Your task to perform on an android device: turn off data saver in the chrome app Image 0: 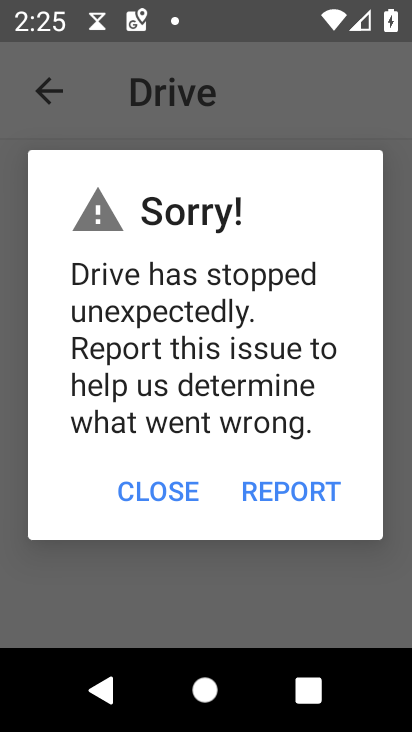
Step 0: press home button
Your task to perform on an android device: turn off data saver in the chrome app Image 1: 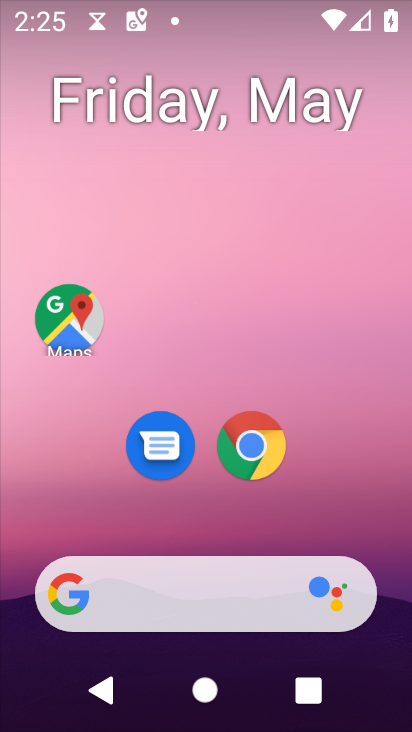
Step 1: click (271, 436)
Your task to perform on an android device: turn off data saver in the chrome app Image 2: 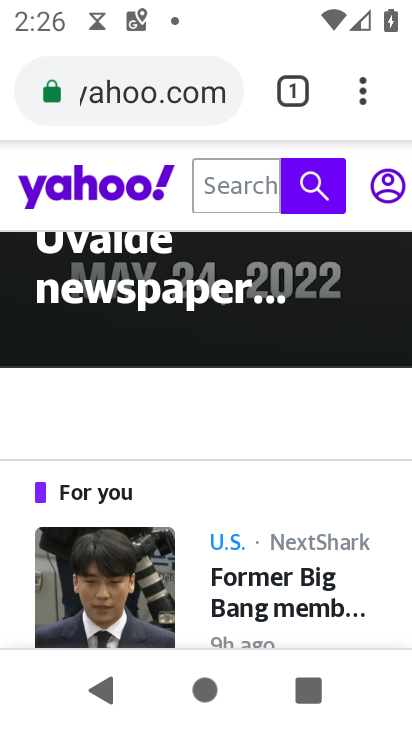
Step 2: click (362, 88)
Your task to perform on an android device: turn off data saver in the chrome app Image 3: 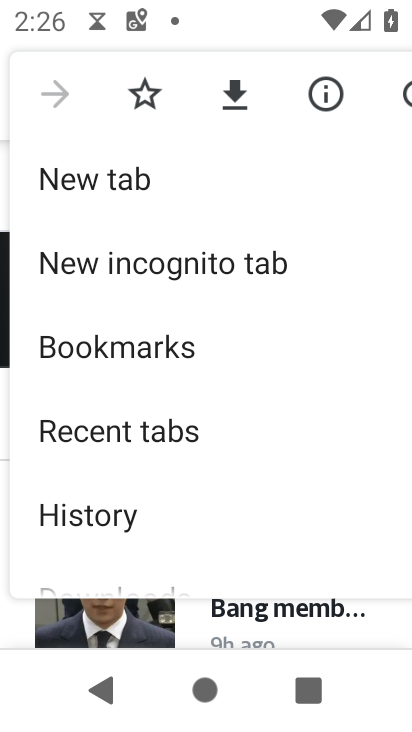
Step 3: click (228, 484)
Your task to perform on an android device: turn off data saver in the chrome app Image 4: 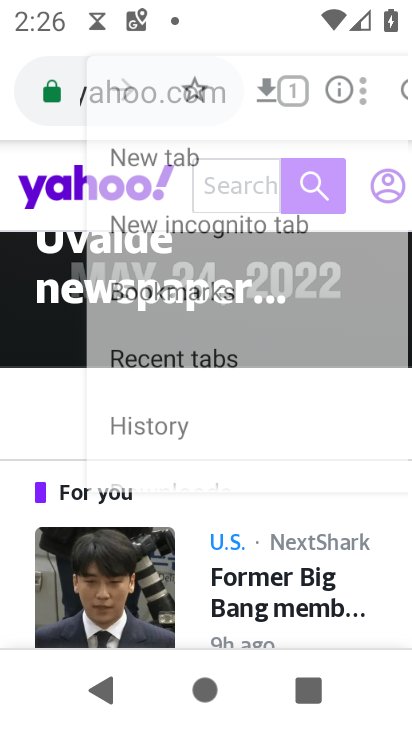
Step 4: click (269, 396)
Your task to perform on an android device: turn off data saver in the chrome app Image 5: 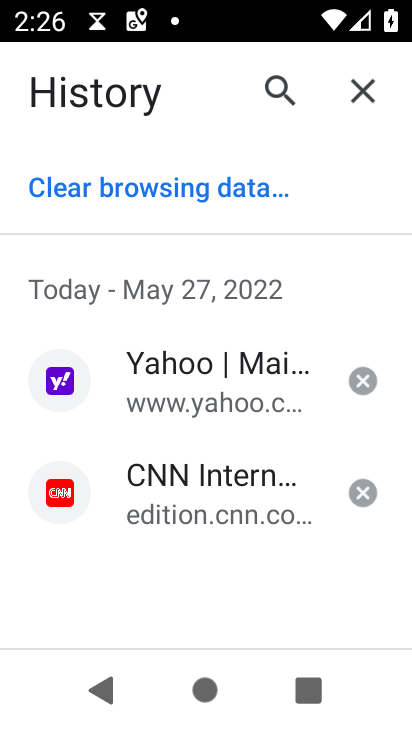
Step 5: click (353, 97)
Your task to perform on an android device: turn off data saver in the chrome app Image 6: 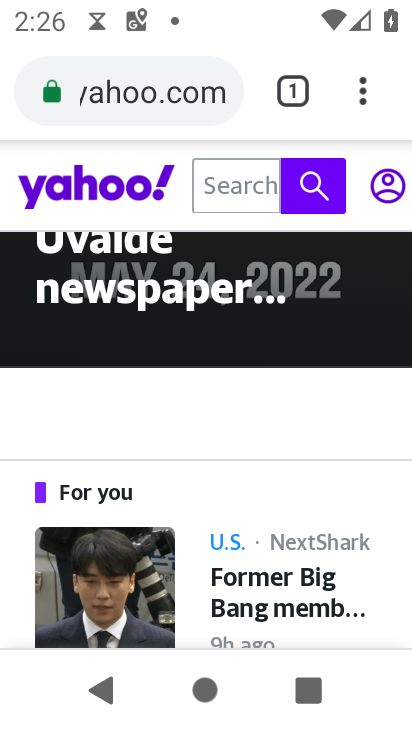
Step 6: click (361, 90)
Your task to perform on an android device: turn off data saver in the chrome app Image 7: 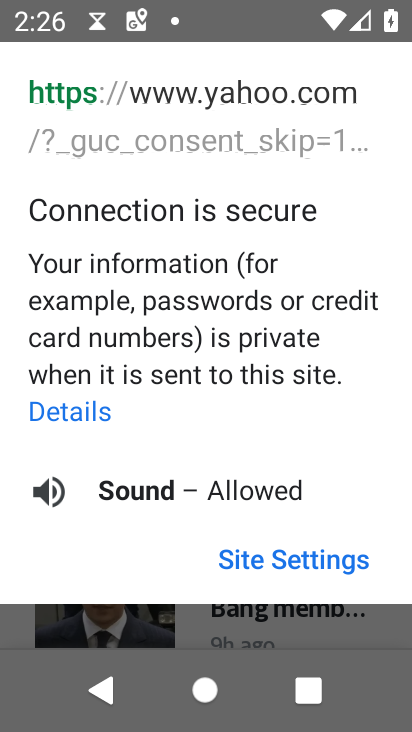
Step 7: click (175, 644)
Your task to perform on an android device: turn off data saver in the chrome app Image 8: 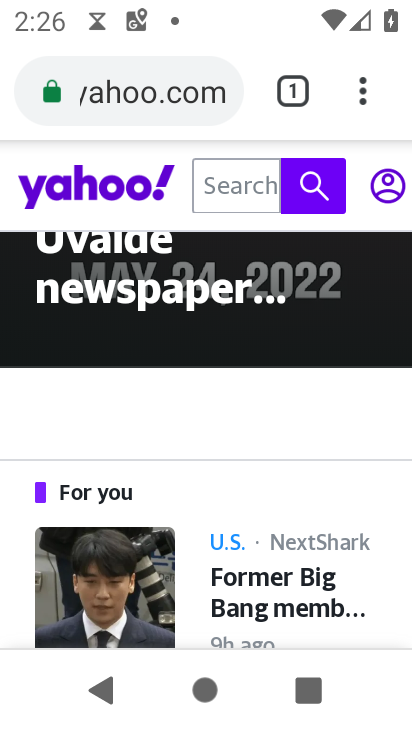
Step 8: click (371, 153)
Your task to perform on an android device: turn off data saver in the chrome app Image 9: 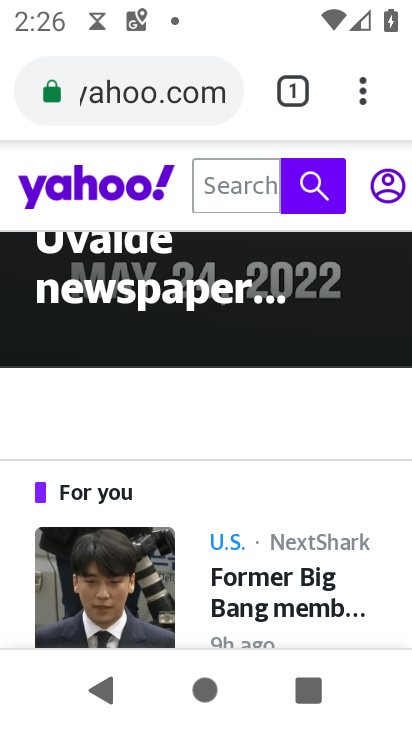
Step 9: click (359, 100)
Your task to perform on an android device: turn off data saver in the chrome app Image 10: 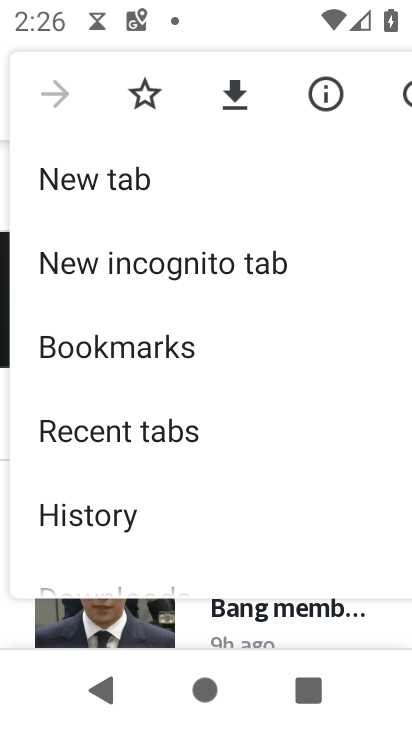
Step 10: drag from (167, 435) to (213, 56)
Your task to perform on an android device: turn off data saver in the chrome app Image 11: 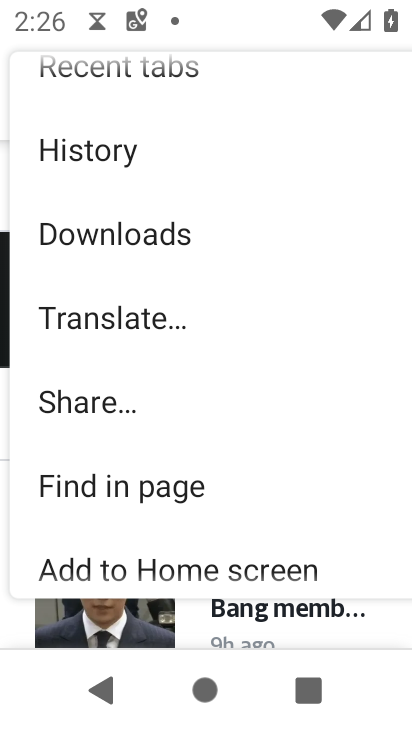
Step 11: drag from (158, 534) to (209, 127)
Your task to perform on an android device: turn off data saver in the chrome app Image 12: 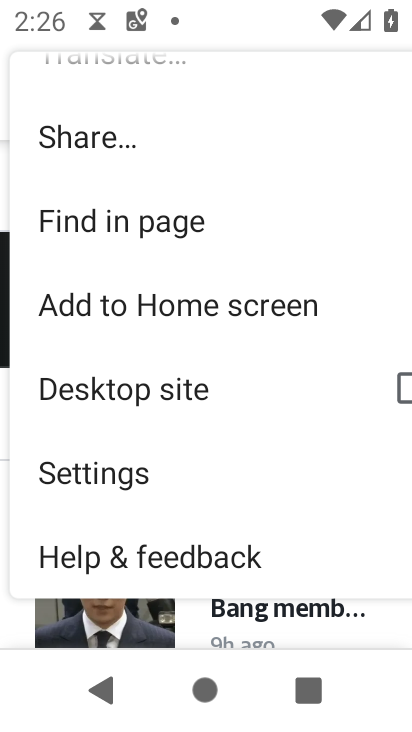
Step 12: click (154, 469)
Your task to perform on an android device: turn off data saver in the chrome app Image 13: 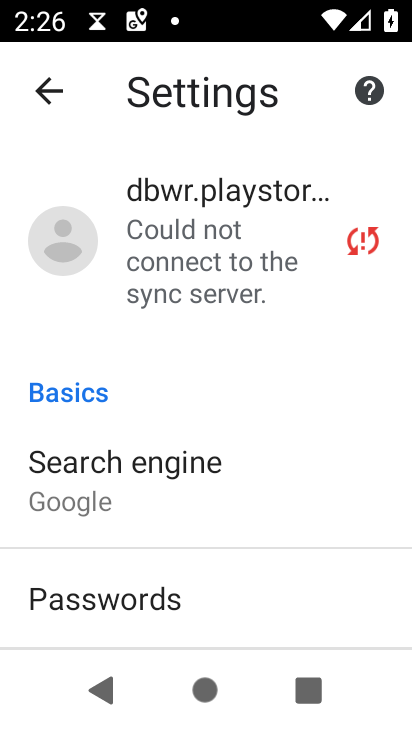
Step 13: drag from (207, 568) to (253, 107)
Your task to perform on an android device: turn off data saver in the chrome app Image 14: 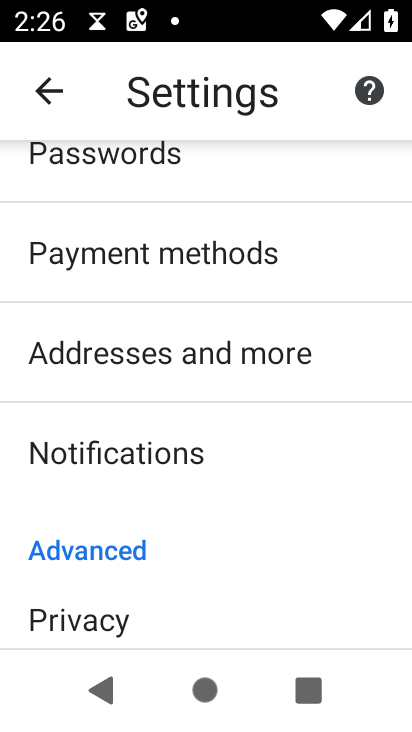
Step 14: drag from (217, 570) to (247, 188)
Your task to perform on an android device: turn off data saver in the chrome app Image 15: 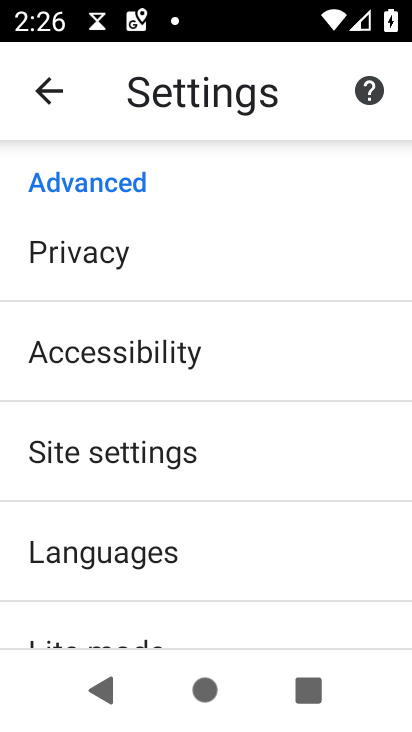
Step 15: click (198, 619)
Your task to perform on an android device: turn off data saver in the chrome app Image 16: 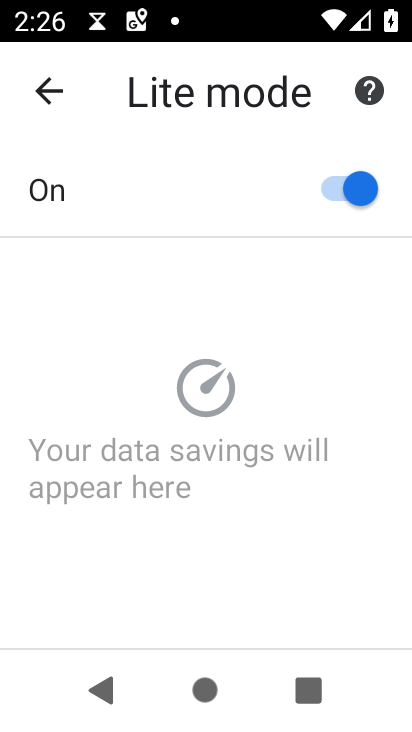
Step 16: click (342, 182)
Your task to perform on an android device: turn off data saver in the chrome app Image 17: 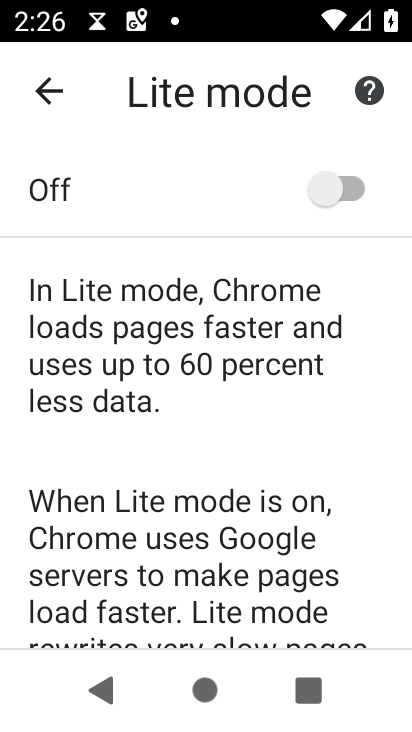
Step 17: task complete